Your task to perform on an android device: turn on improve location accuracy Image 0: 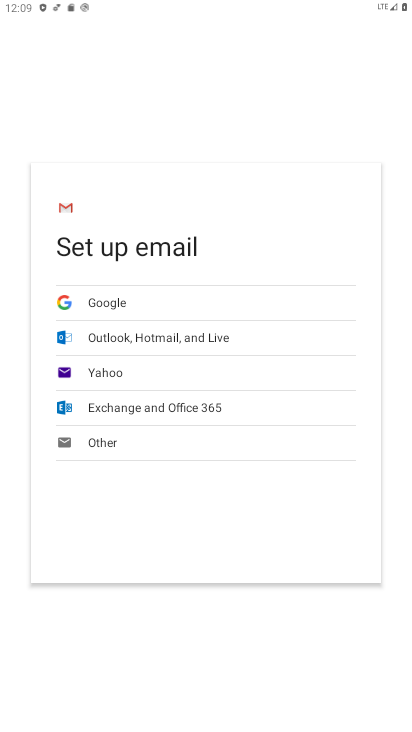
Step 0: press home button
Your task to perform on an android device: turn on improve location accuracy Image 1: 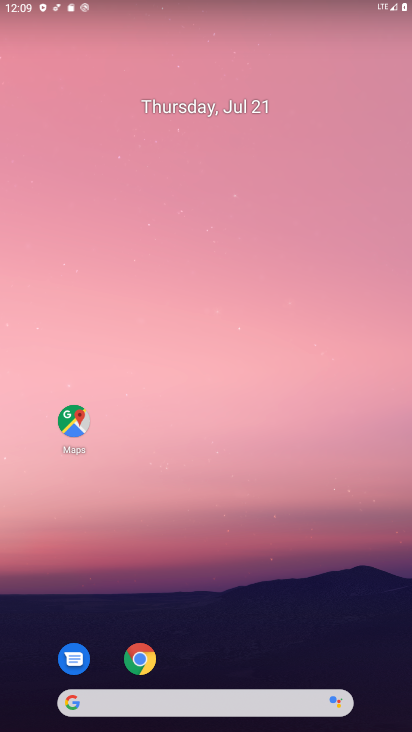
Step 1: drag from (199, 585) to (210, 146)
Your task to perform on an android device: turn on improve location accuracy Image 2: 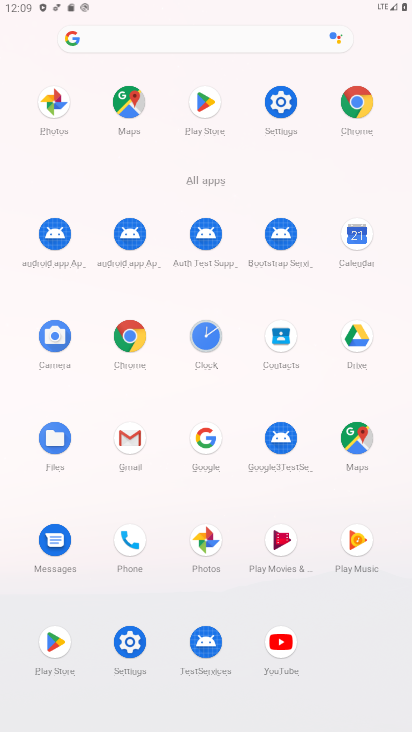
Step 2: click (288, 129)
Your task to perform on an android device: turn on improve location accuracy Image 3: 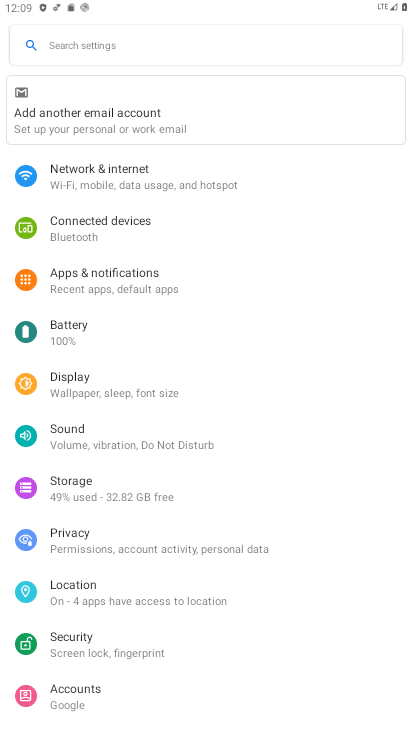
Step 3: click (72, 595)
Your task to perform on an android device: turn on improve location accuracy Image 4: 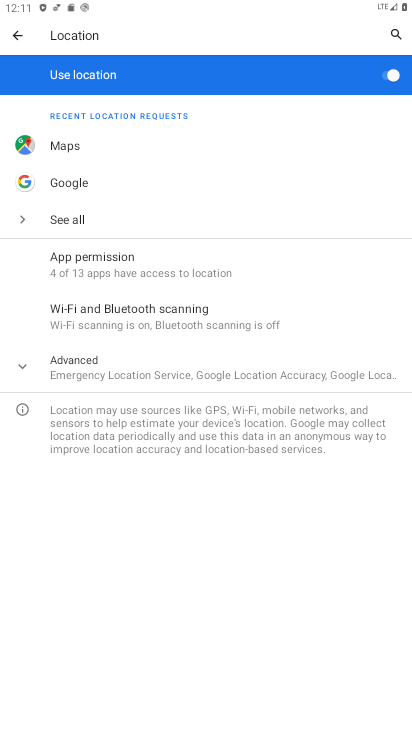
Step 4: press home button
Your task to perform on an android device: turn on improve location accuracy Image 5: 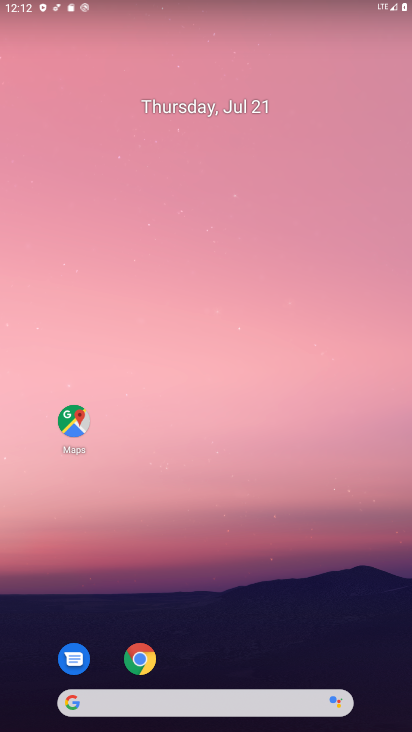
Step 5: click (183, 77)
Your task to perform on an android device: turn on improve location accuracy Image 6: 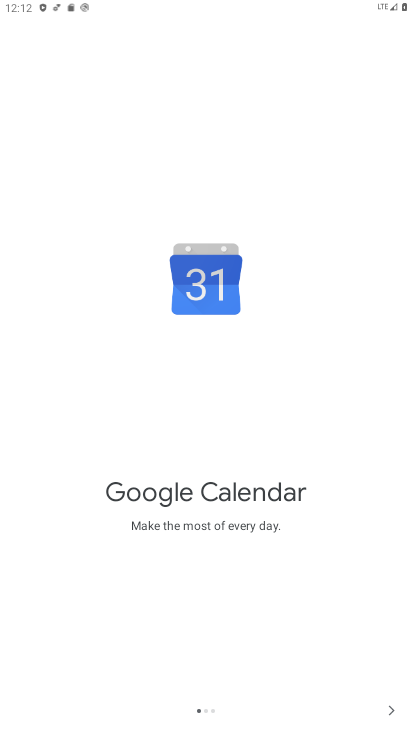
Step 6: press home button
Your task to perform on an android device: turn on improve location accuracy Image 7: 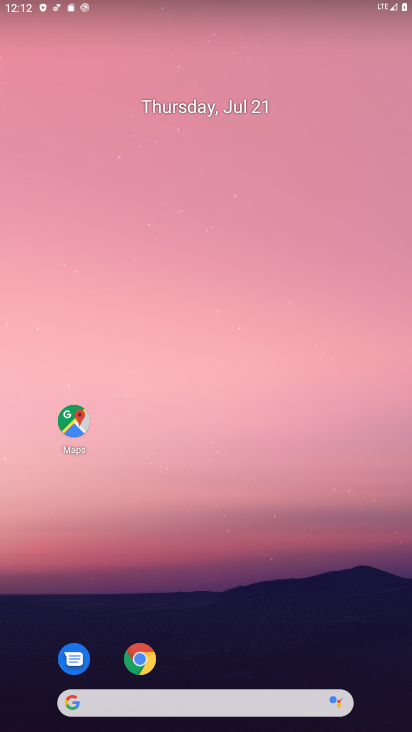
Step 7: drag from (185, 319) to (174, 37)
Your task to perform on an android device: turn on improve location accuracy Image 8: 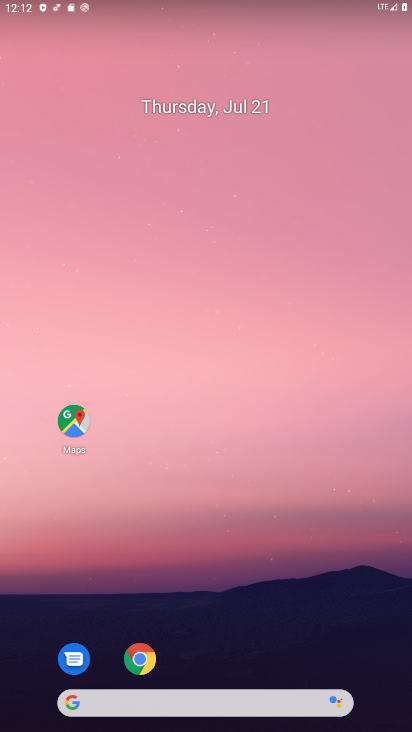
Step 8: drag from (199, 381) to (200, 33)
Your task to perform on an android device: turn on improve location accuracy Image 9: 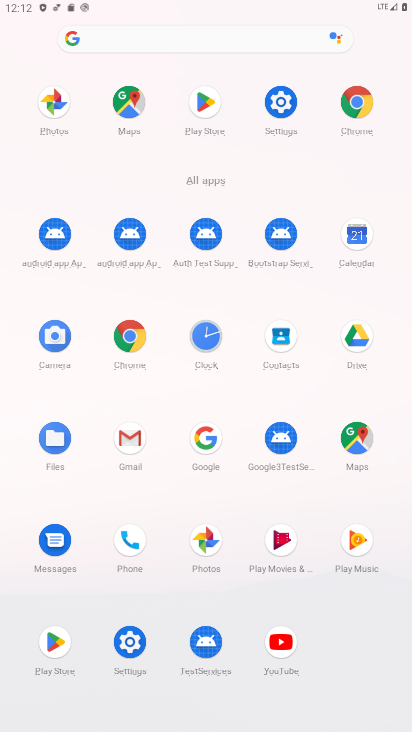
Step 9: click (278, 97)
Your task to perform on an android device: turn on improve location accuracy Image 10: 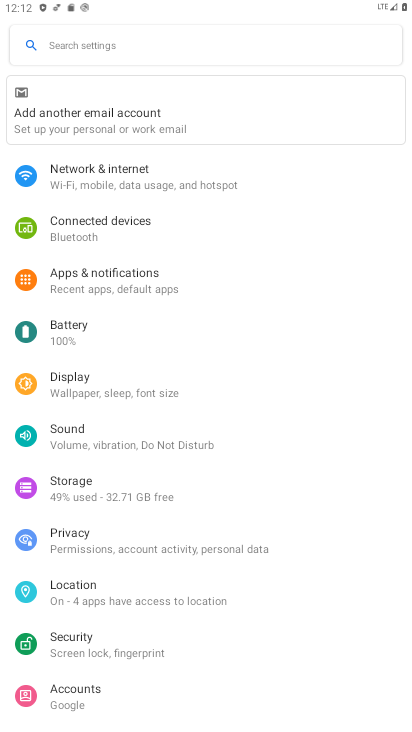
Step 10: click (71, 592)
Your task to perform on an android device: turn on improve location accuracy Image 11: 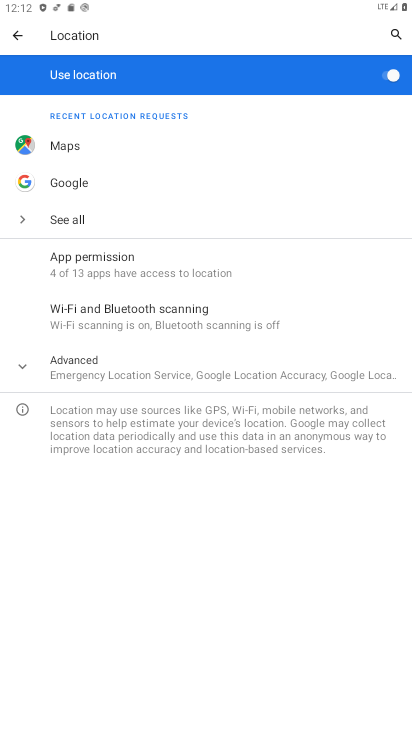
Step 11: click (59, 369)
Your task to perform on an android device: turn on improve location accuracy Image 12: 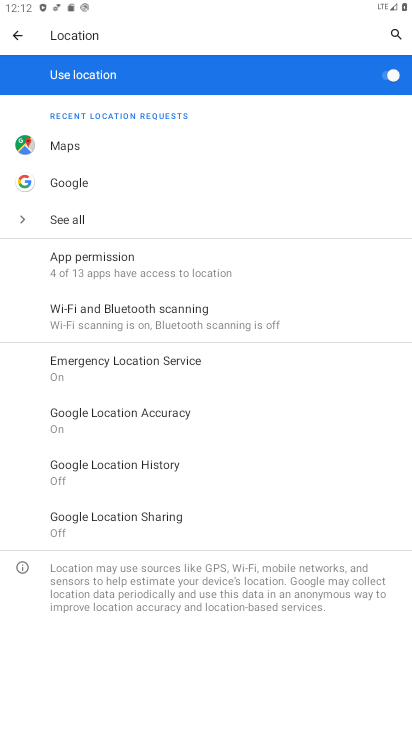
Step 12: click (107, 404)
Your task to perform on an android device: turn on improve location accuracy Image 13: 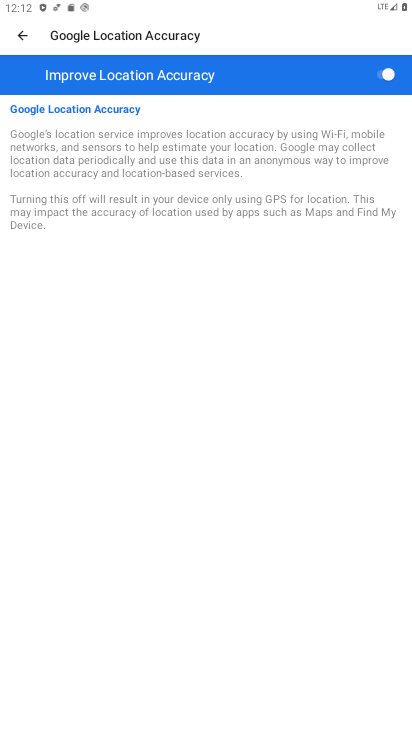
Step 13: task complete